Your task to perform on an android device: Open Reddit.com Image 0: 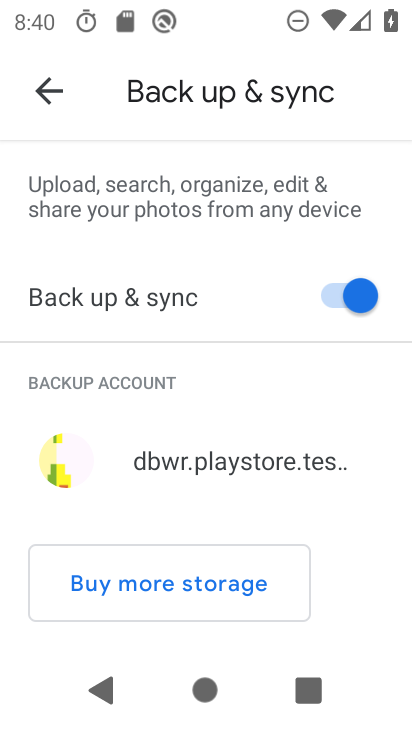
Step 0: press home button
Your task to perform on an android device: Open Reddit.com Image 1: 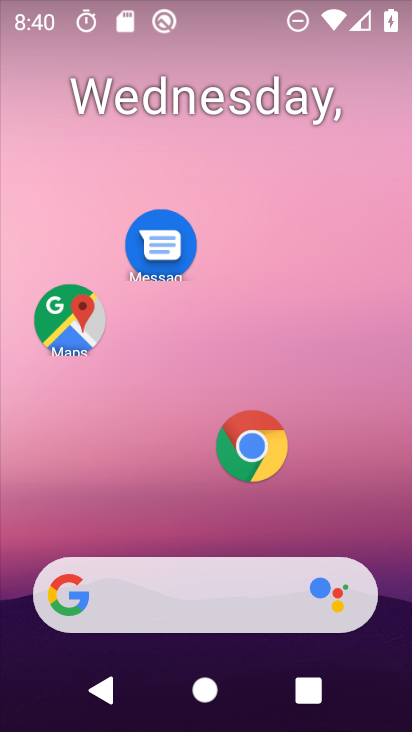
Step 1: click (248, 435)
Your task to perform on an android device: Open Reddit.com Image 2: 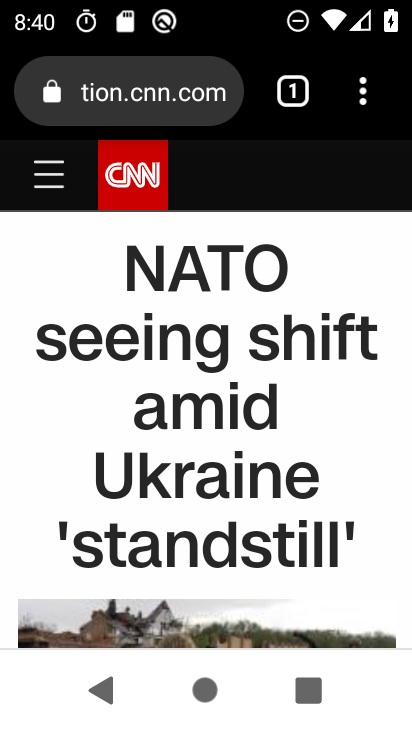
Step 2: click (298, 91)
Your task to perform on an android device: Open Reddit.com Image 3: 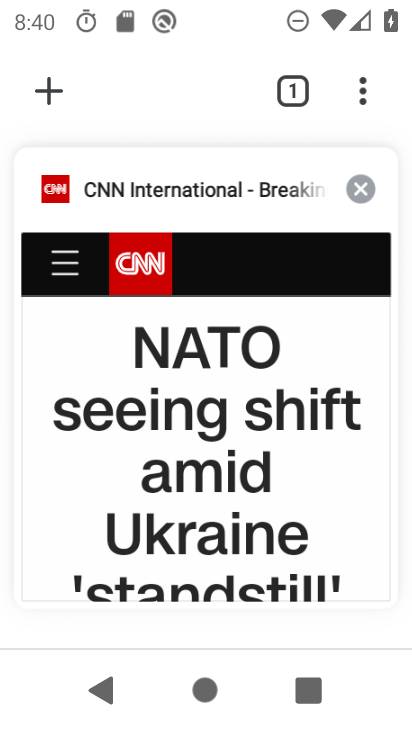
Step 3: click (359, 181)
Your task to perform on an android device: Open Reddit.com Image 4: 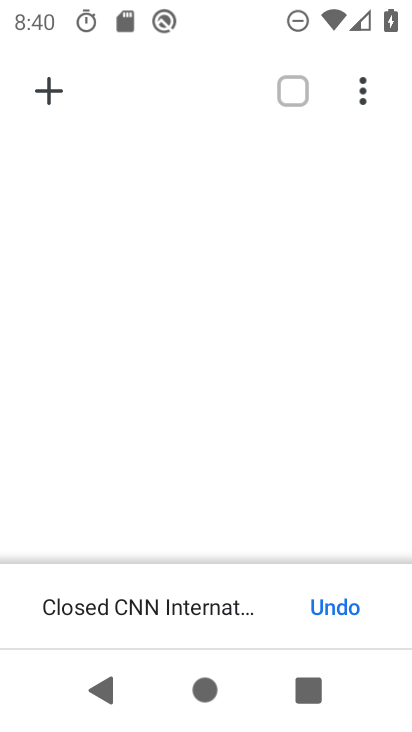
Step 4: click (55, 90)
Your task to perform on an android device: Open Reddit.com Image 5: 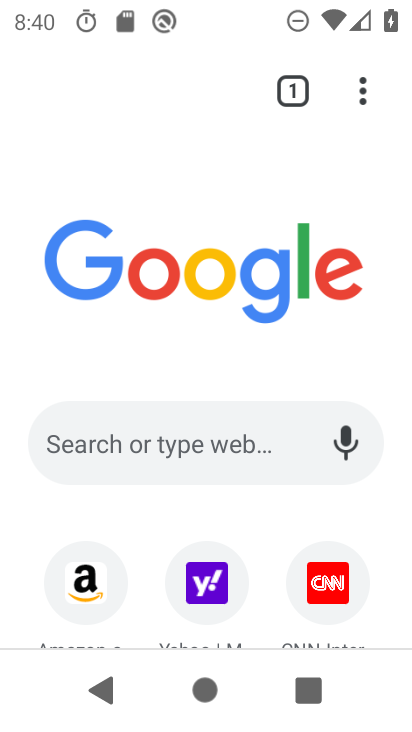
Step 5: drag from (256, 519) to (240, 220)
Your task to perform on an android device: Open Reddit.com Image 6: 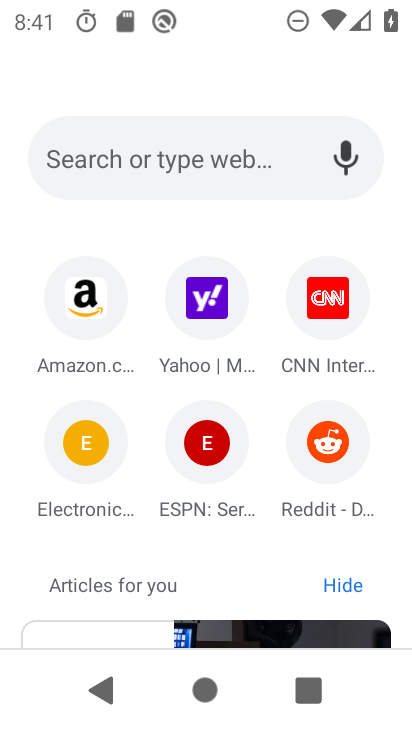
Step 6: click (322, 435)
Your task to perform on an android device: Open Reddit.com Image 7: 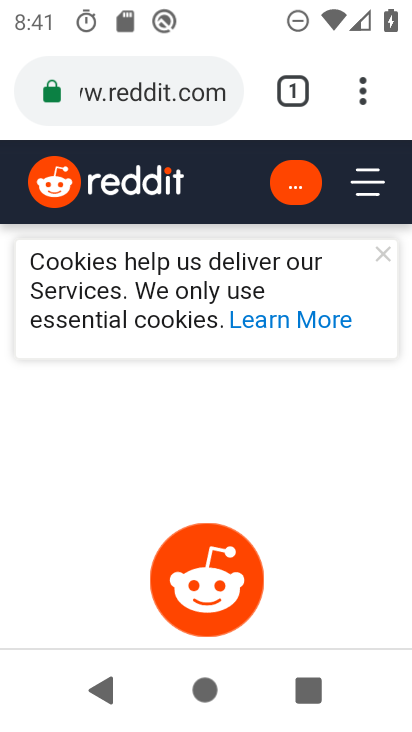
Step 7: drag from (296, 558) to (301, 250)
Your task to perform on an android device: Open Reddit.com Image 8: 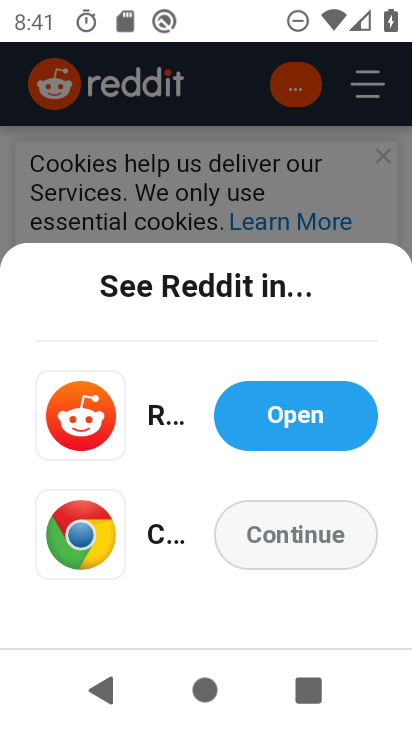
Step 8: click (302, 532)
Your task to perform on an android device: Open Reddit.com Image 9: 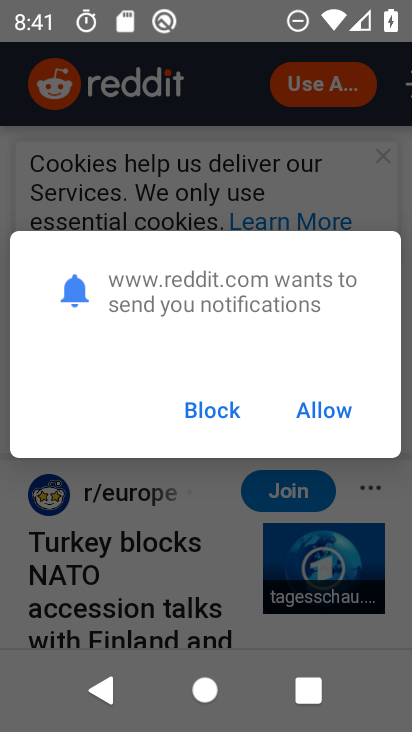
Step 9: click (215, 410)
Your task to perform on an android device: Open Reddit.com Image 10: 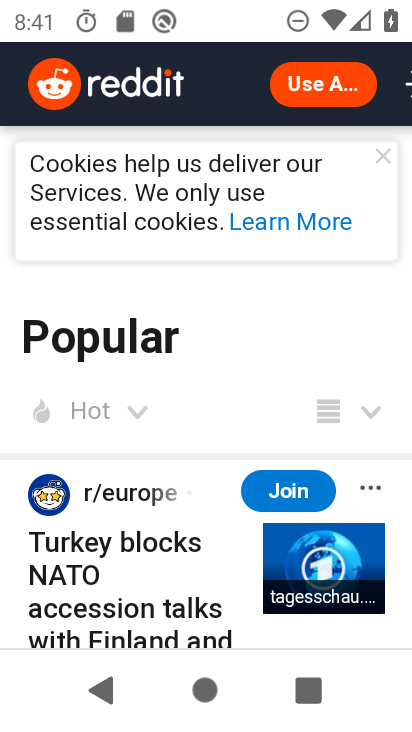
Step 10: click (379, 157)
Your task to perform on an android device: Open Reddit.com Image 11: 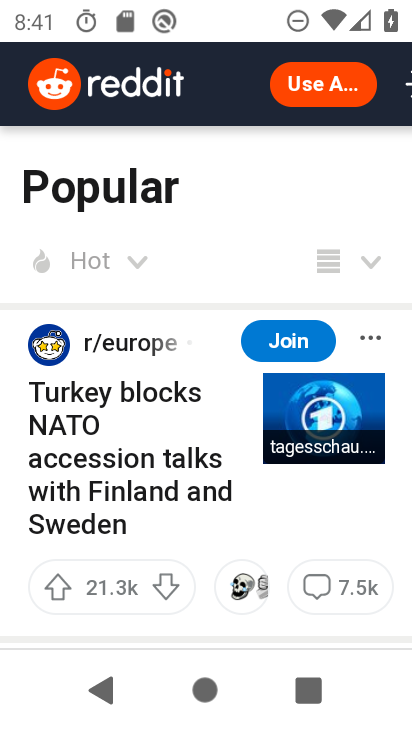
Step 11: task complete